Your task to perform on an android device: remove spam from my inbox in the gmail app Image 0: 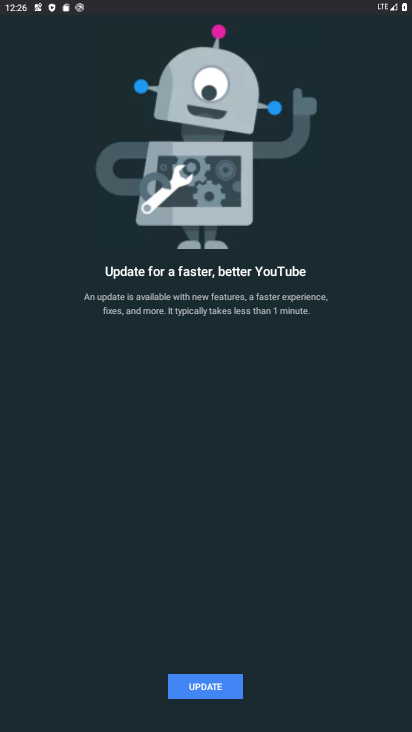
Step 0: press back button
Your task to perform on an android device: remove spam from my inbox in the gmail app Image 1: 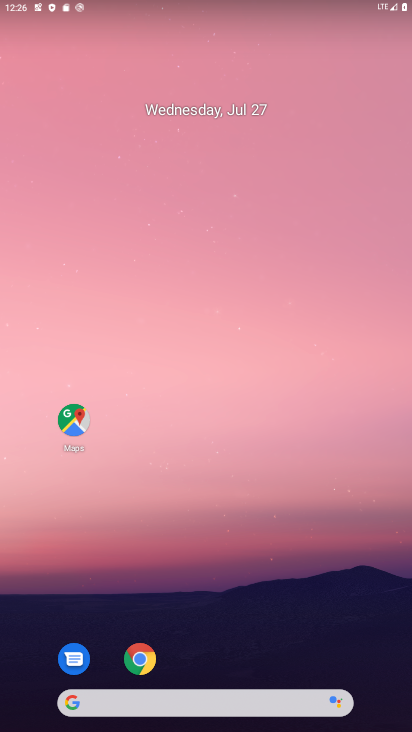
Step 1: press home button
Your task to perform on an android device: remove spam from my inbox in the gmail app Image 2: 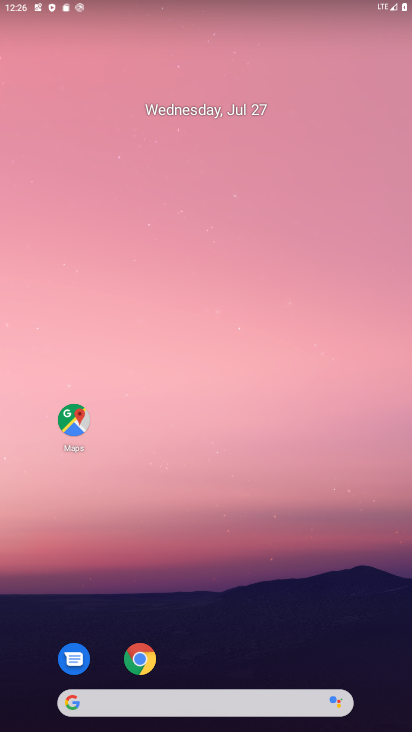
Step 2: drag from (282, 586) to (249, 156)
Your task to perform on an android device: remove spam from my inbox in the gmail app Image 3: 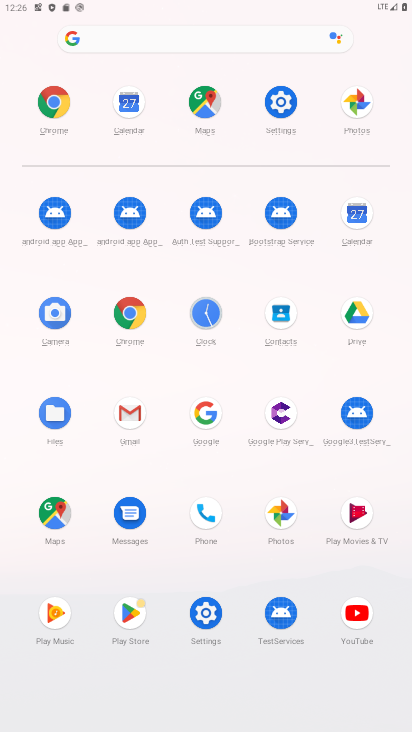
Step 3: click (135, 425)
Your task to perform on an android device: remove spam from my inbox in the gmail app Image 4: 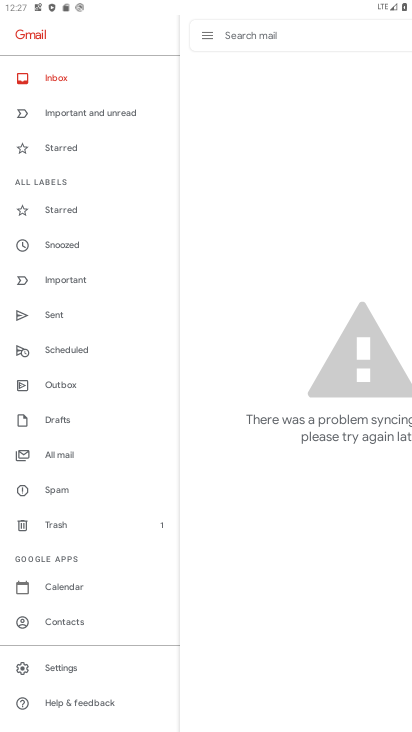
Step 4: click (61, 498)
Your task to perform on an android device: remove spam from my inbox in the gmail app Image 5: 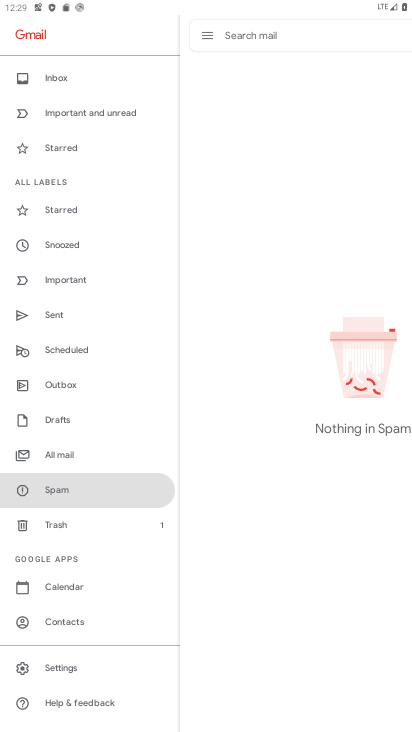
Step 5: task complete